Your task to perform on an android device: Open Google Maps Image 0: 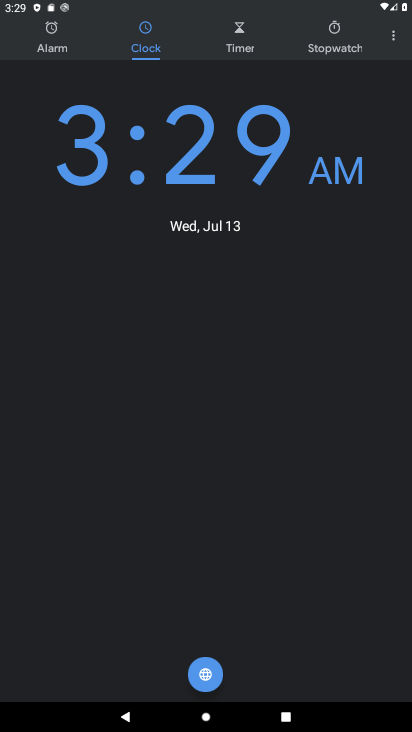
Step 0: press home button
Your task to perform on an android device: Open Google Maps Image 1: 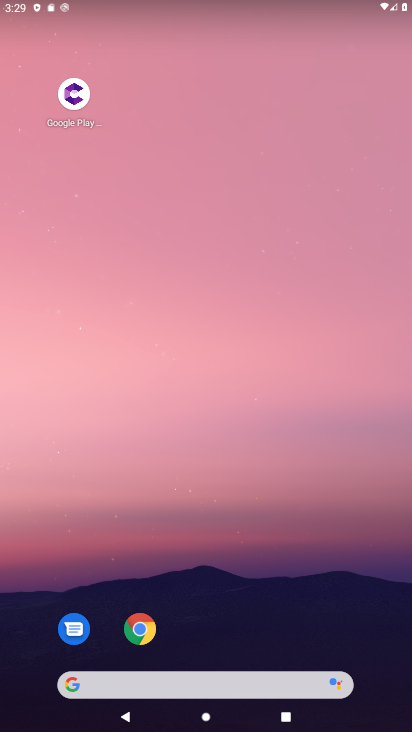
Step 1: drag from (308, 645) to (345, 19)
Your task to perform on an android device: Open Google Maps Image 2: 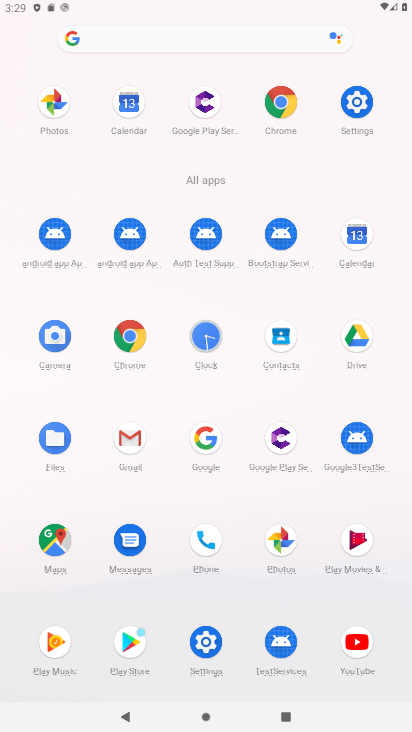
Step 2: click (54, 542)
Your task to perform on an android device: Open Google Maps Image 3: 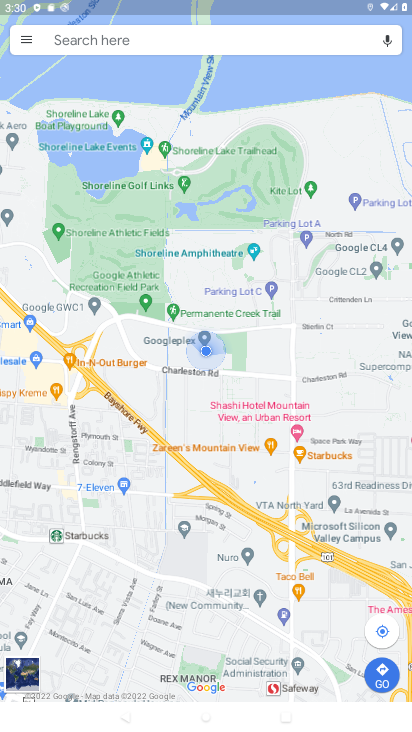
Step 3: task complete